Your task to perform on an android device: Open battery settings Image 0: 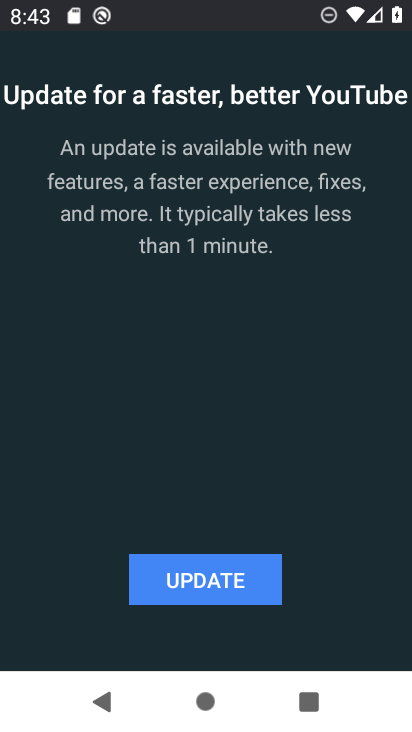
Step 0: press home button
Your task to perform on an android device: Open battery settings Image 1: 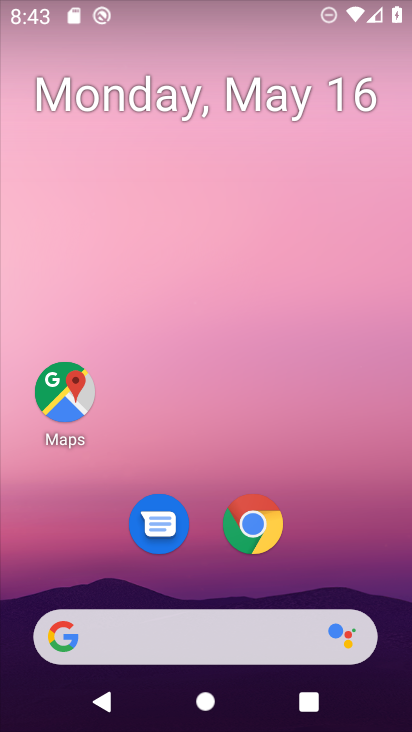
Step 1: drag from (308, 523) to (268, 97)
Your task to perform on an android device: Open battery settings Image 2: 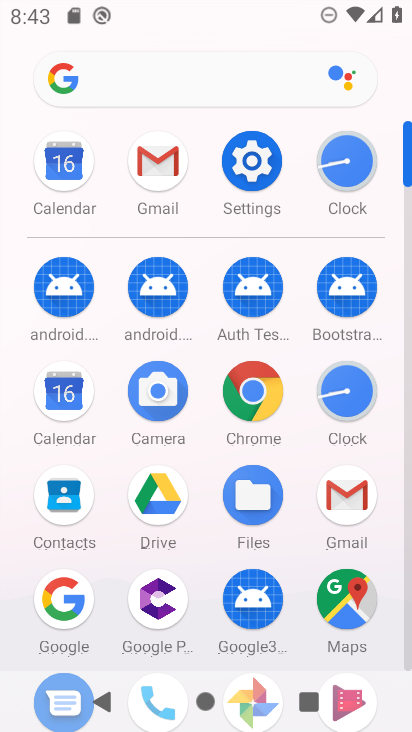
Step 2: click (258, 151)
Your task to perform on an android device: Open battery settings Image 3: 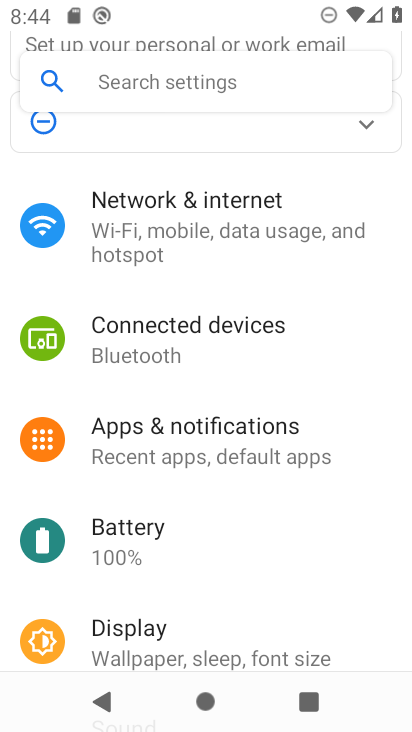
Step 3: click (219, 540)
Your task to perform on an android device: Open battery settings Image 4: 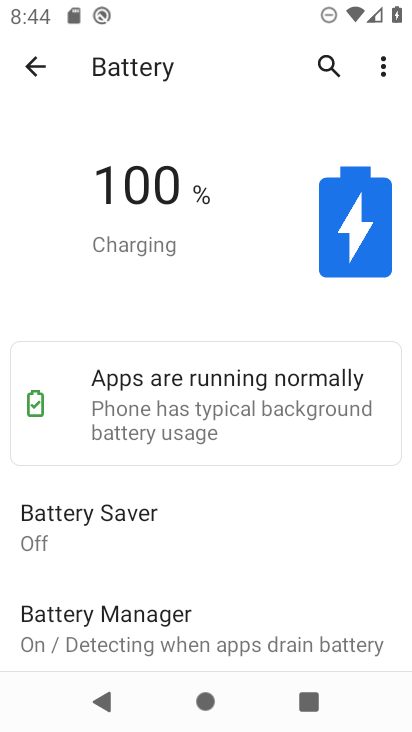
Step 4: task complete